Your task to perform on an android device: turn off location Image 0: 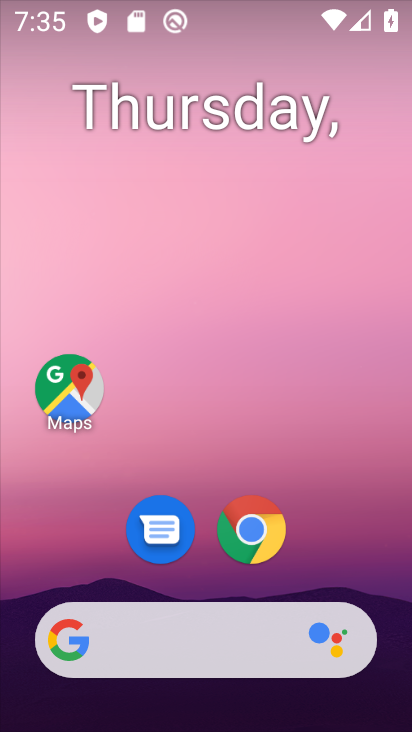
Step 0: drag from (214, 576) to (243, 41)
Your task to perform on an android device: turn off location Image 1: 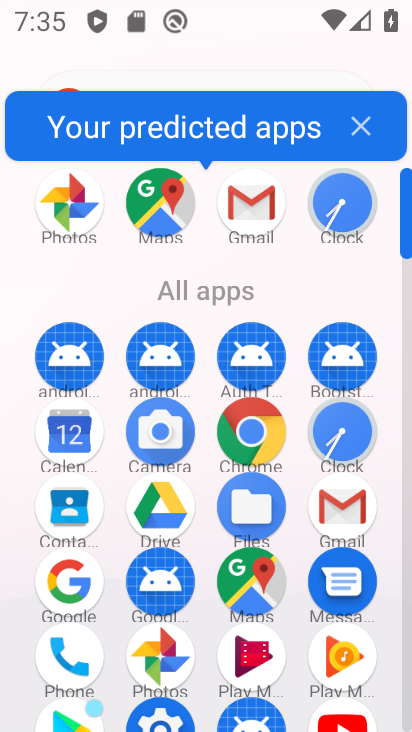
Step 1: click (155, 705)
Your task to perform on an android device: turn off location Image 2: 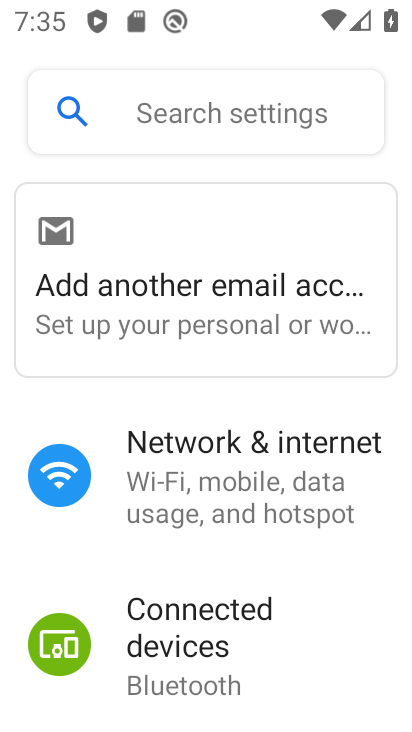
Step 2: drag from (247, 677) to (278, 197)
Your task to perform on an android device: turn off location Image 3: 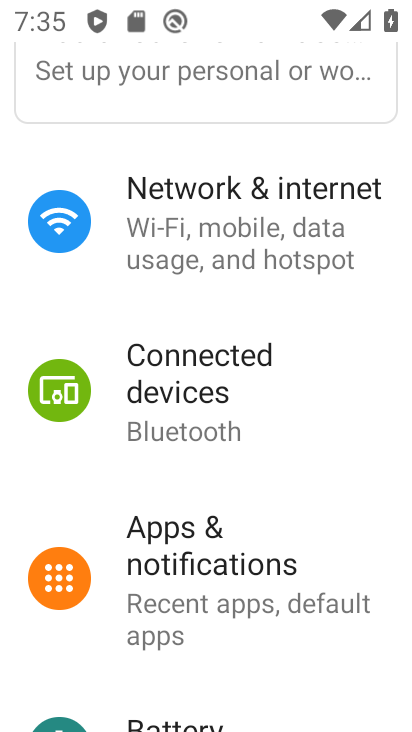
Step 3: drag from (144, 571) to (194, 109)
Your task to perform on an android device: turn off location Image 4: 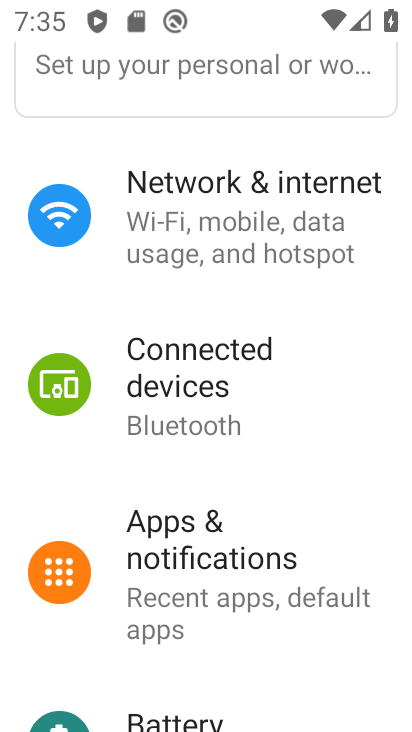
Step 4: drag from (157, 596) to (280, 136)
Your task to perform on an android device: turn off location Image 5: 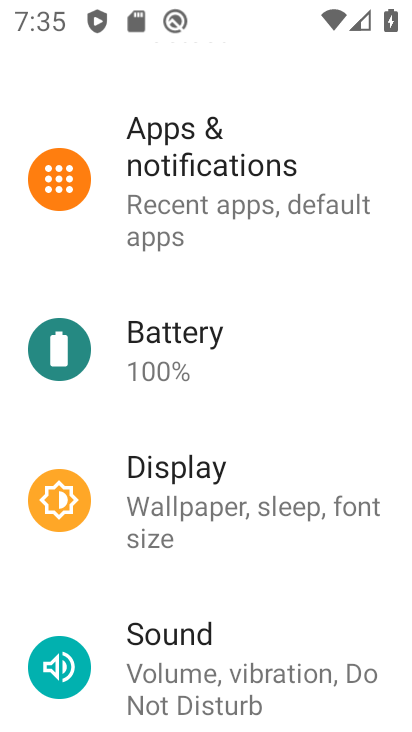
Step 5: drag from (150, 623) to (121, 125)
Your task to perform on an android device: turn off location Image 6: 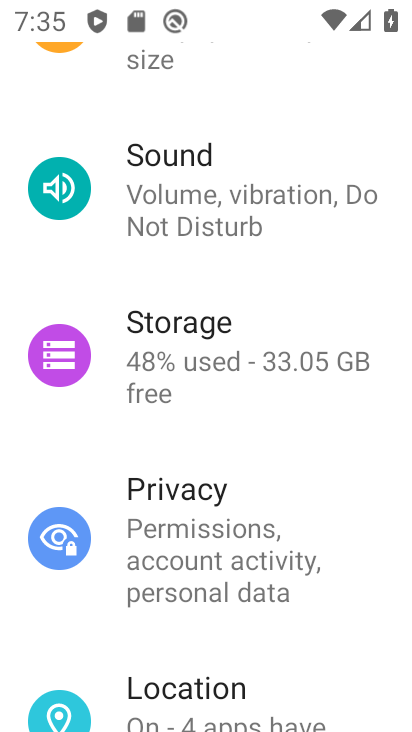
Step 6: click (183, 689)
Your task to perform on an android device: turn off location Image 7: 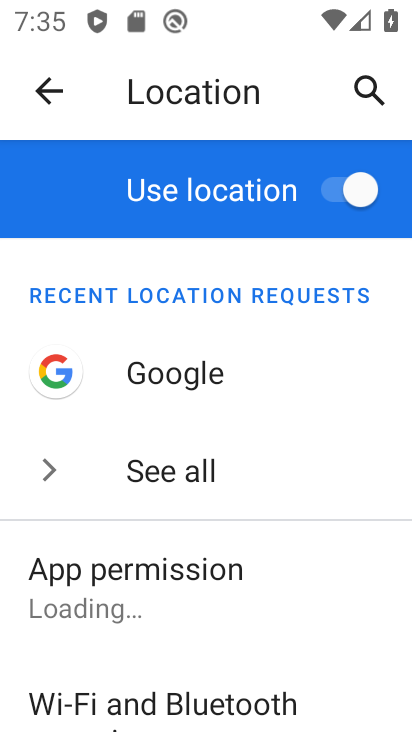
Step 7: click (336, 181)
Your task to perform on an android device: turn off location Image 8: 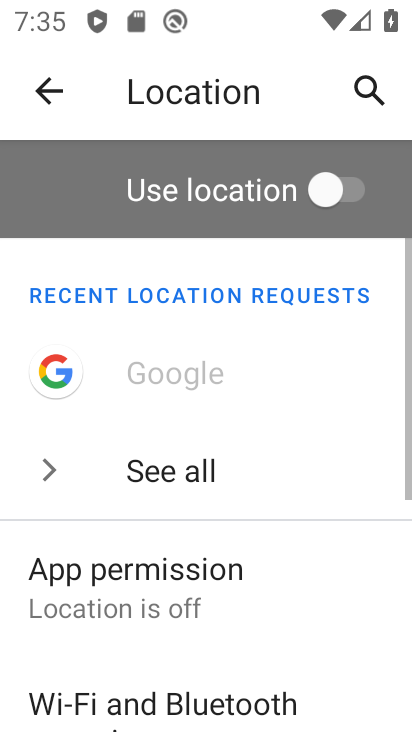
Step 8: task complete